Your task to perform on an android device: Do I have any events today? Image 0: 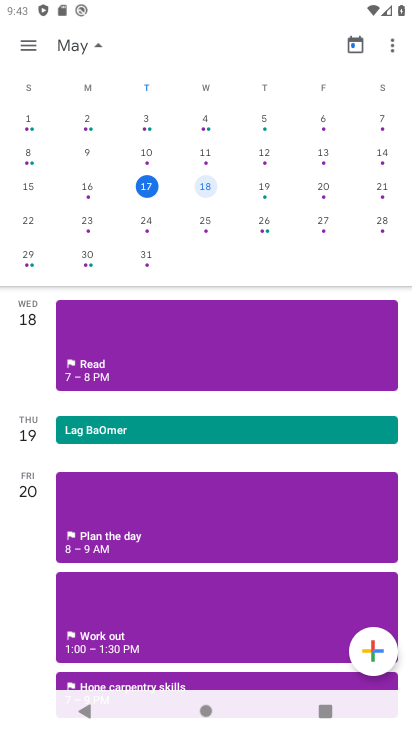
Step 0: press home button
Your task to perform on an android device: Do I have any events today? Image 1: 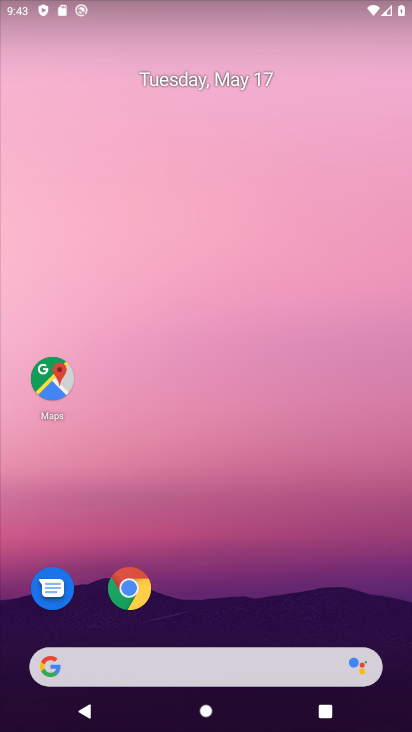
Step 1: drag from (224, 726) to (225, 168)
Your task to perform on an android device: Do I have any events today? Image 2: 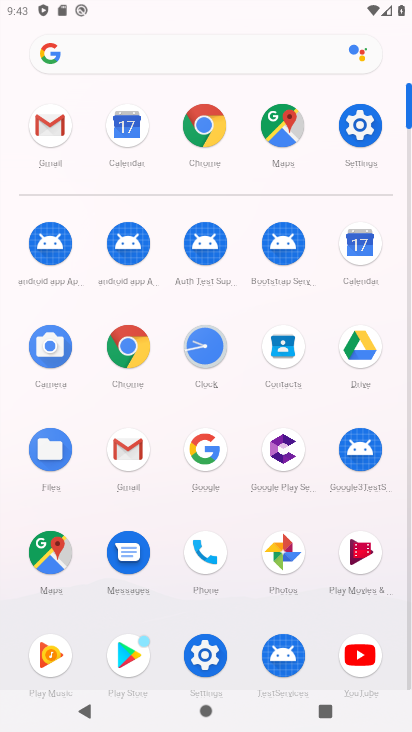
Step 2: click (354, 244)
Your task to perform on an android device: Do I have any events today? Image 3: 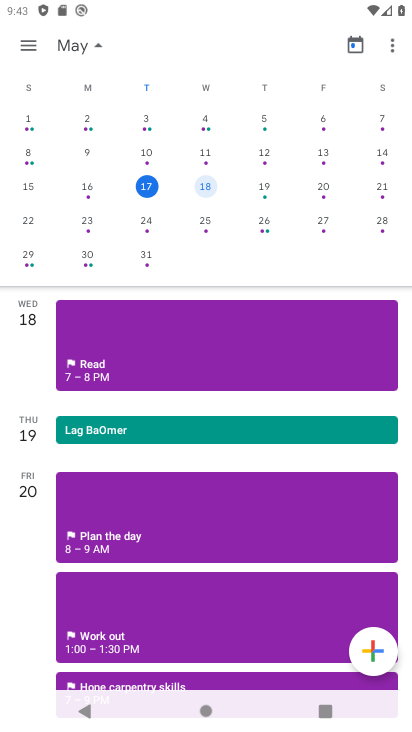
Step 3: click (145, 182)
Your task to perform on an android device: Do I have any events today? Image 4: 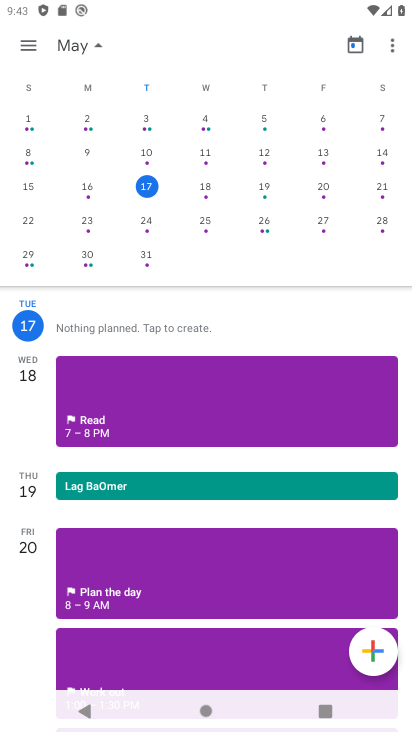
Step 4: click (94, 42)
Your task to perform on an android device: Do I have any events today? Image 5: 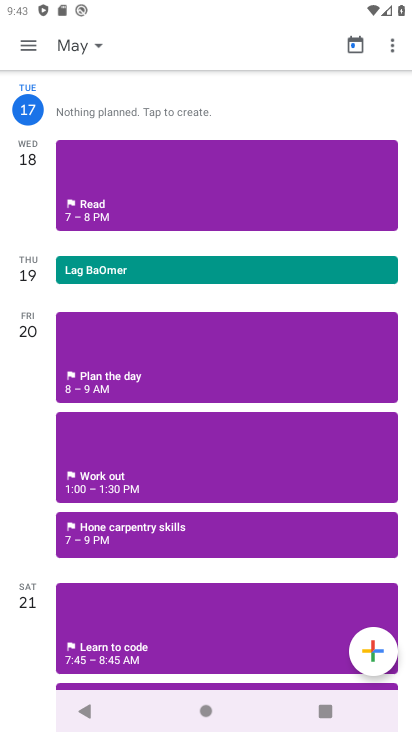
Step 5: task complete